Your task to perform on an android device: Search for seafood restaurants on Google Maps Image 0: 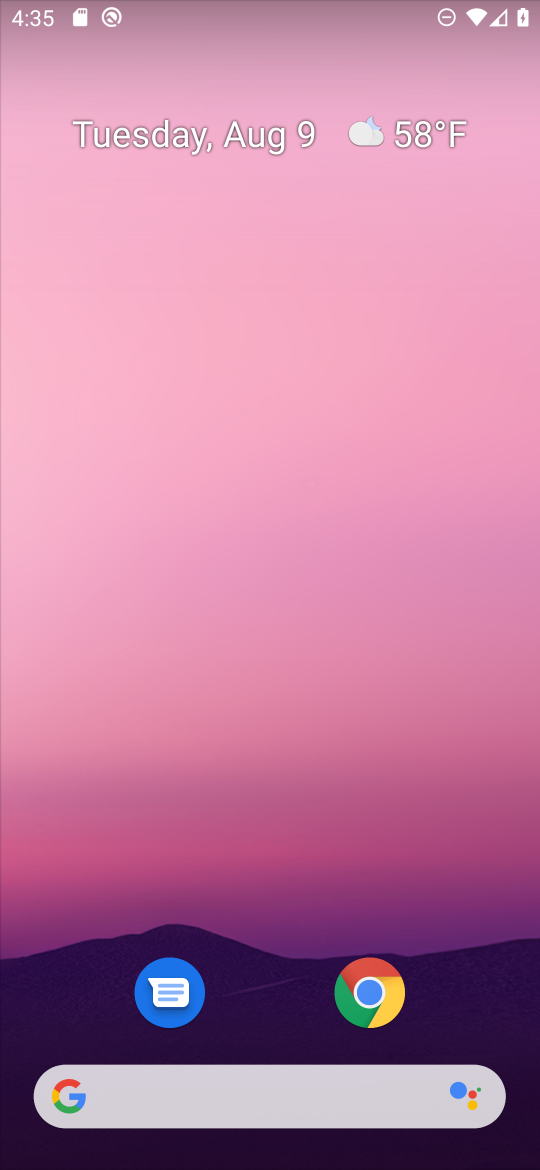
Step 0: drag from (320, 1123) to (368, 119)
Your task to perform on an android device: Search for seafood restaurants on Google Maps Image 1: 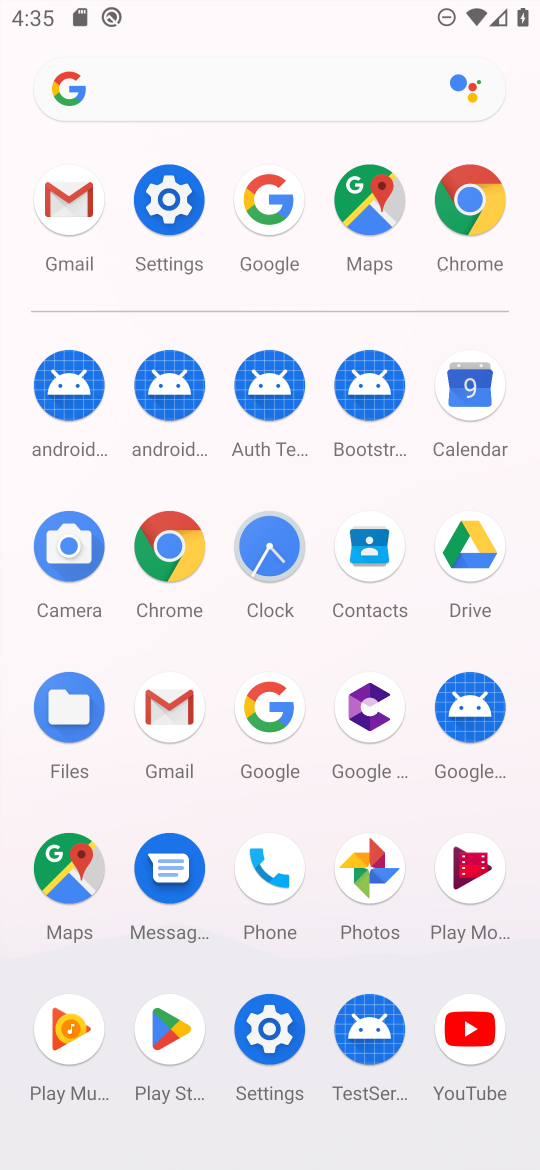
Step 1: click (67, 864)
Your task to perform on an android device: Search for seafood restaurants on Google Maps Image 2: 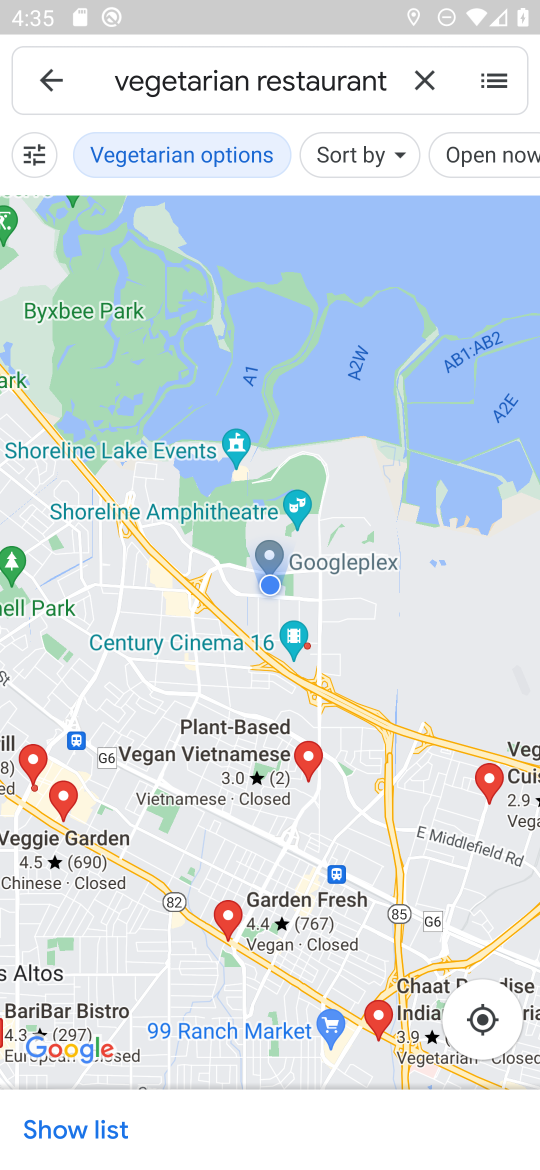
Step 2: press back button
Your task to perform on an android device: Search for seafood restaurants on Google Maps Image 3: 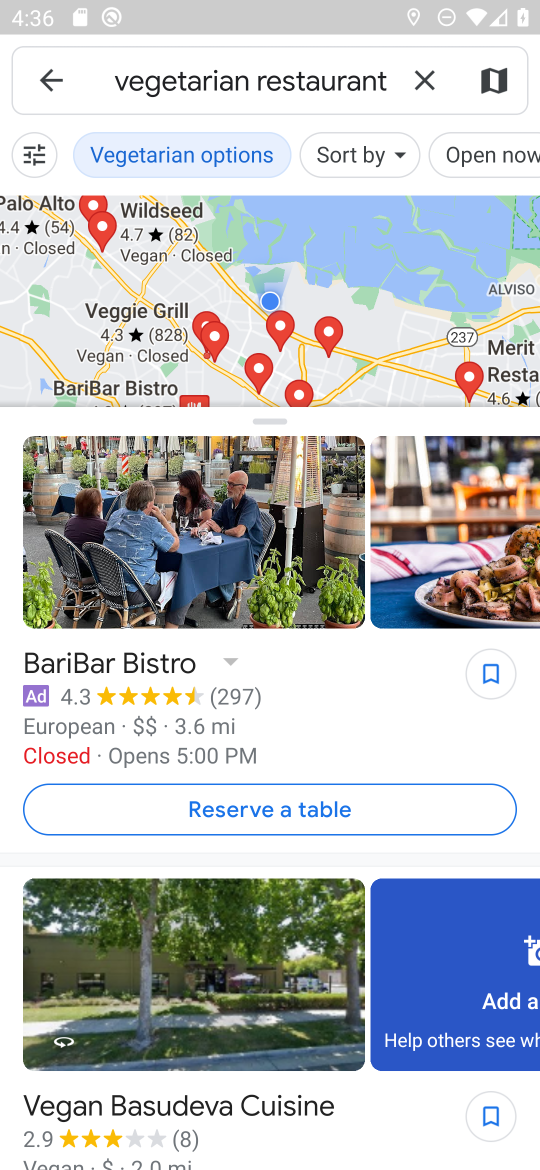
Step 3: click (420, 66)
Your task to perform on an android device: Search for seafood restaurants on Google Maps Image 4: 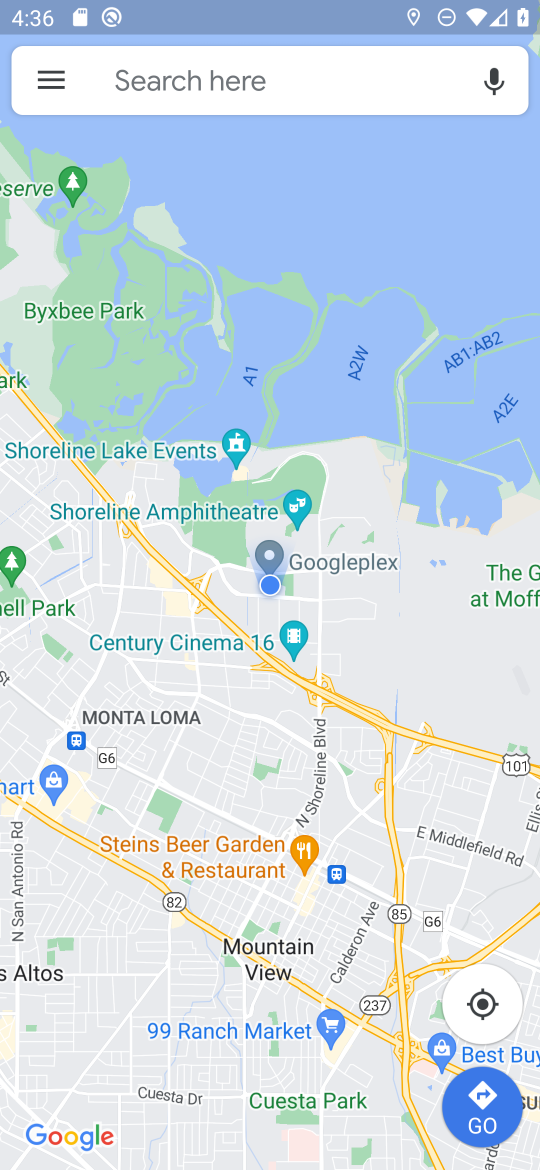
Step 4: click (240, 95)
Your task to perform on an android device: Search for seafood restaurants on Google Maps Image 5: 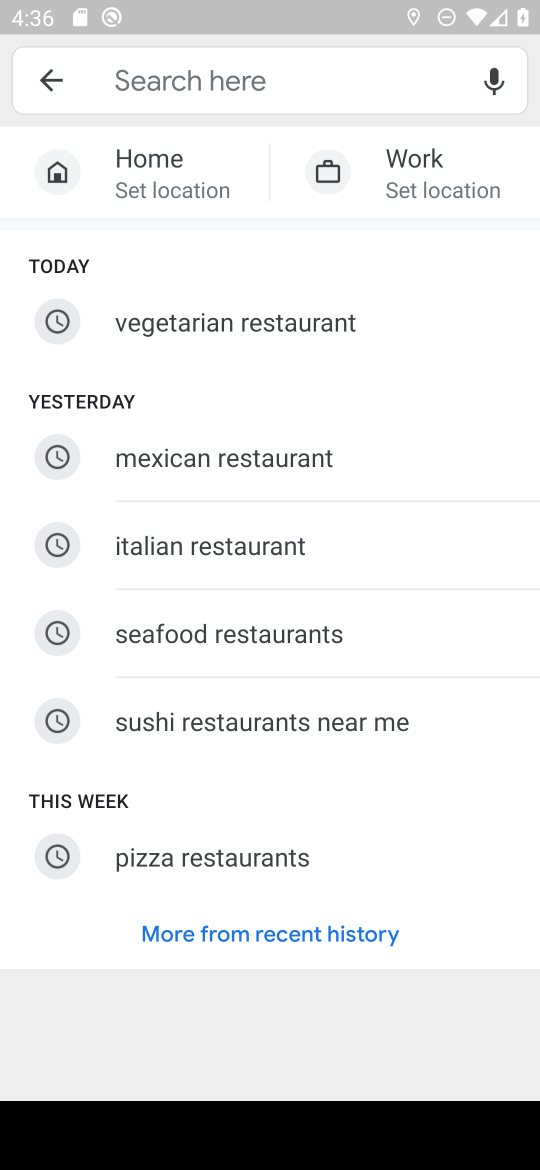
Step 5: type "seafood restaurant"
Your task to perform on an android device: Search for seafood restaurants on Google Maps Image 6: 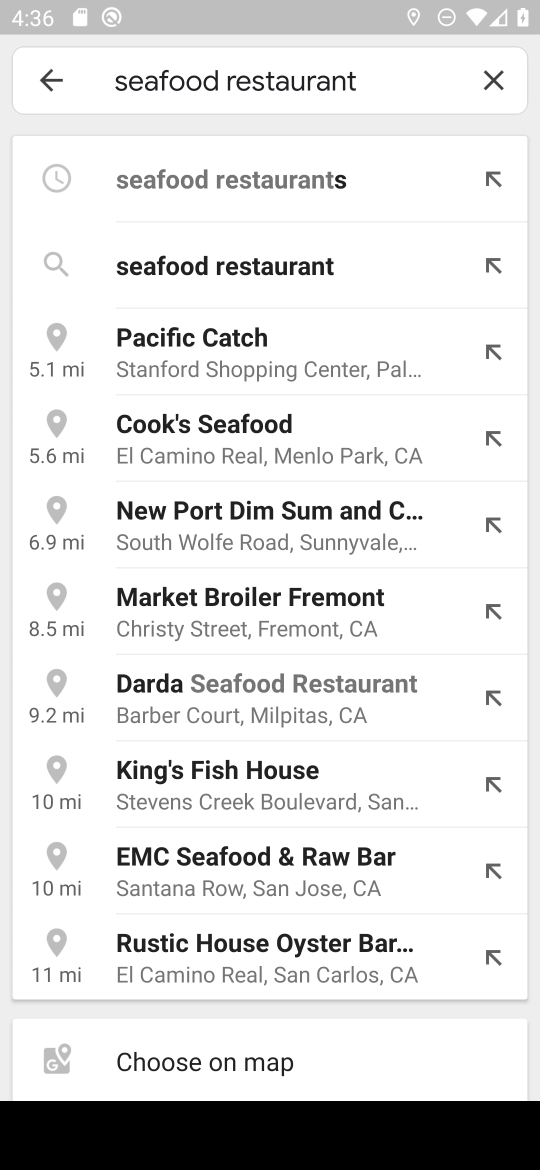
Step 6: click (274, 268)
Your task to perform on an android device: Search for seafood restaurants on Google Maps Image 7: 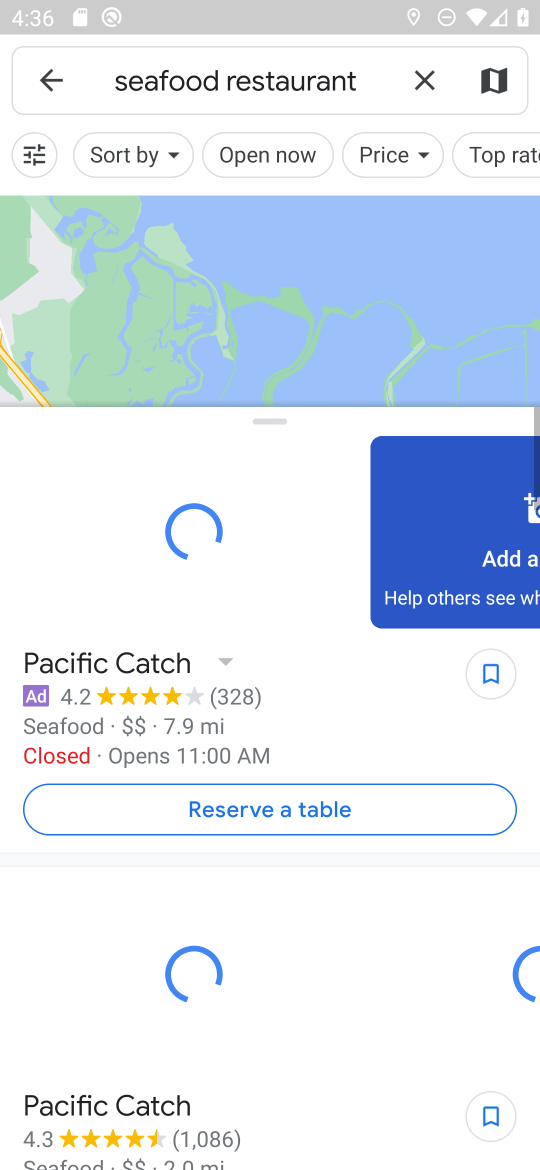
Step 7: task complete